Your task to perform on an android device: all mails in gmail Image 0: 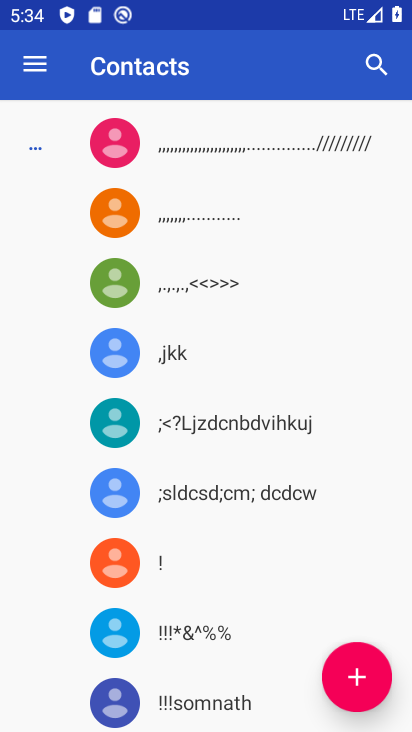
Step 0: press home button
Your task to perform on an android device: all mails in gmail Image 1: 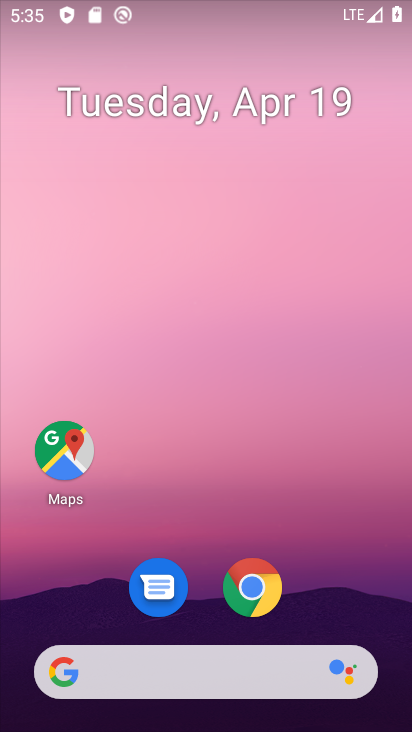
Step 1: drag from (212, 556) to (193, 3)
Your task to perform on an android device: all mails in gmail Image 2: 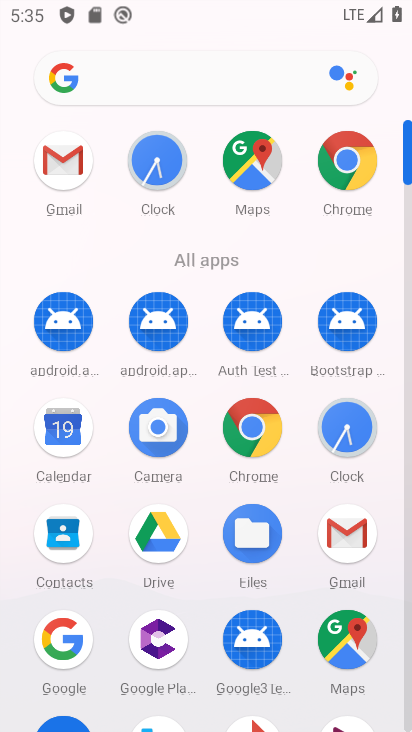
Step 2: click (57, 169)
Your task to perform on an android device: all mails in gmail Image 3: 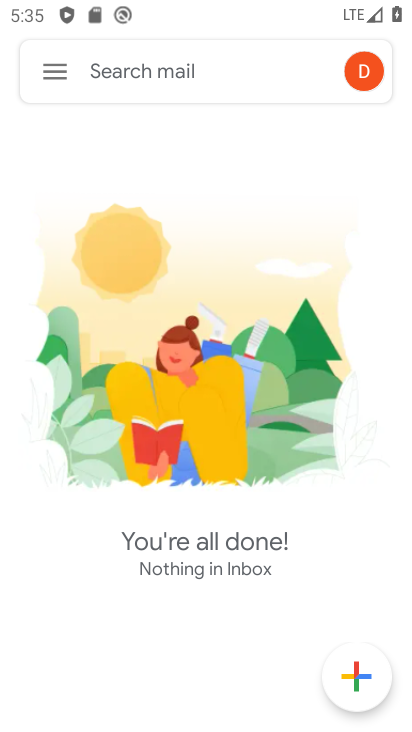
Step 3: click (67, 85)
Your task to perform on an android device: all mails in gmail Image 4: 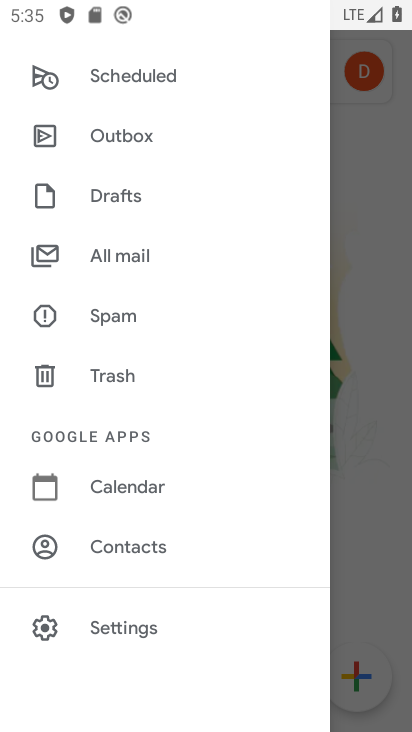
Step 4: click (101, 255)
Your task to perform on an android device: all mails in gmail Image 5: 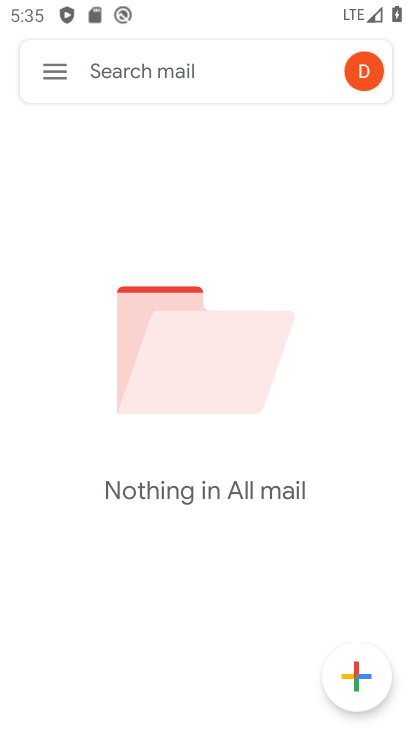
Step 5: task complete